Your task to perform on an android device: Go to location settings Image 0: 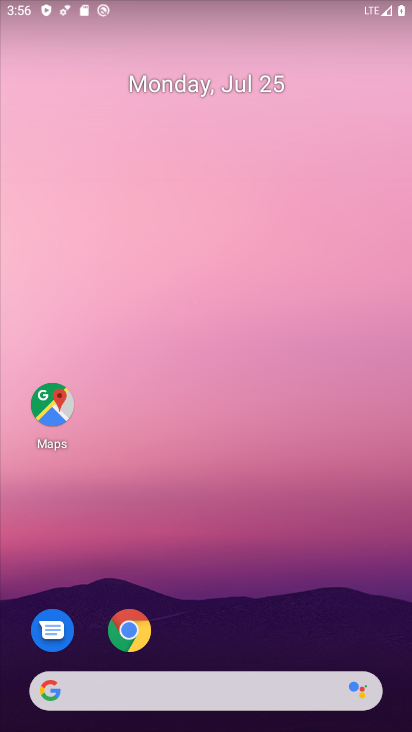
Step 0: drag from (242, 643) to (209, 130)
Your task to perform on an android device: Go to location settings Image 1: 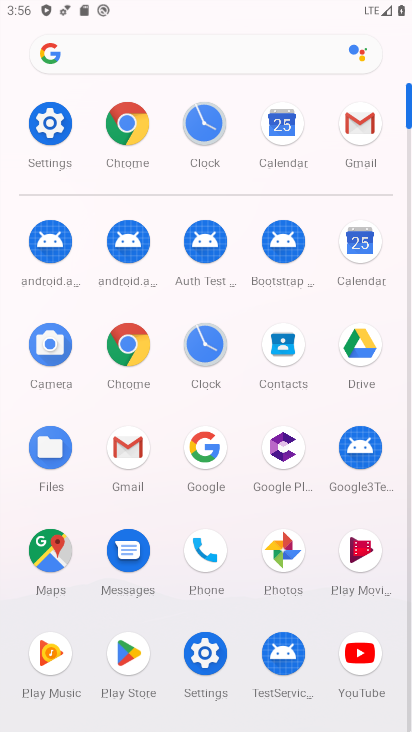
Step 1: click (55, 123)
Your task to perform on an android device: Go to location settings Image 2: 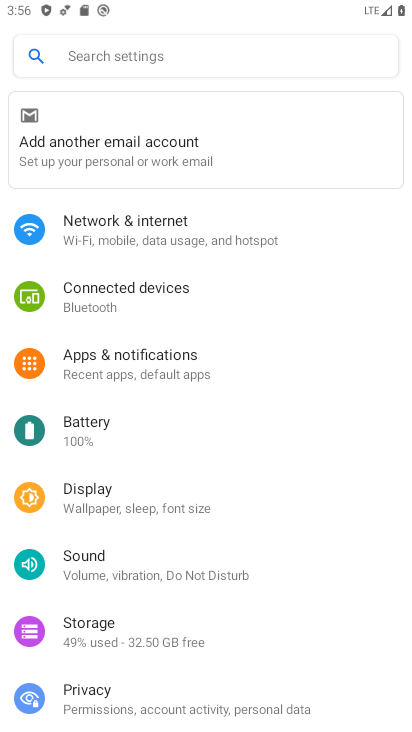
Step 2: drag from (170, 668) to (146, 266)
Your task to perform on an android device: Go to location settings Image 3: 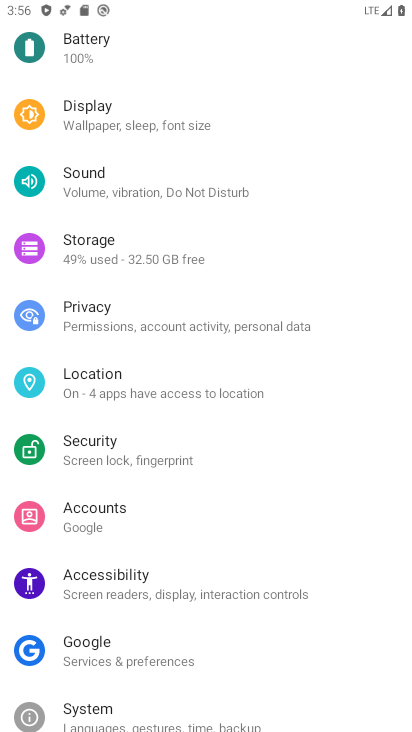
Step 3: click (181, 392)
Your task to perform on an android device: Go to location settings Image 4: 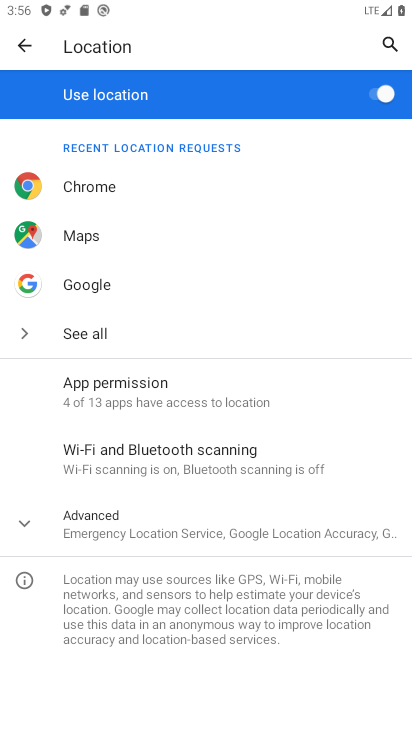
Step 4: task complete